Your task to perform on an android device: read, delete, or share a saved page in the chrome app Image 0: 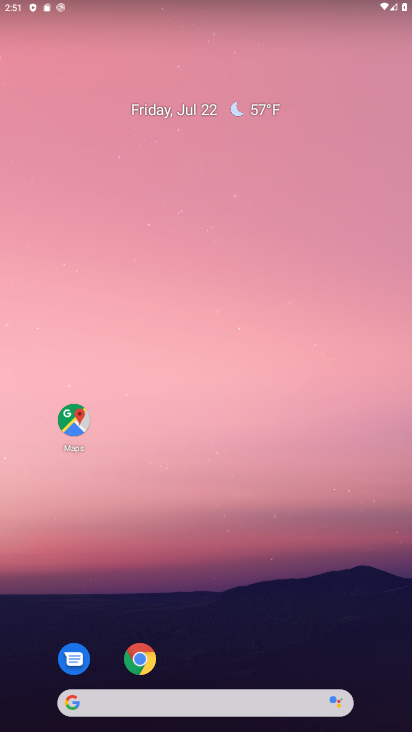
Step 0: drag from (246, 533) to (187, 214)
Your task to perform on an android device: read, delete, or share a saved page in the chrome app Image 1: 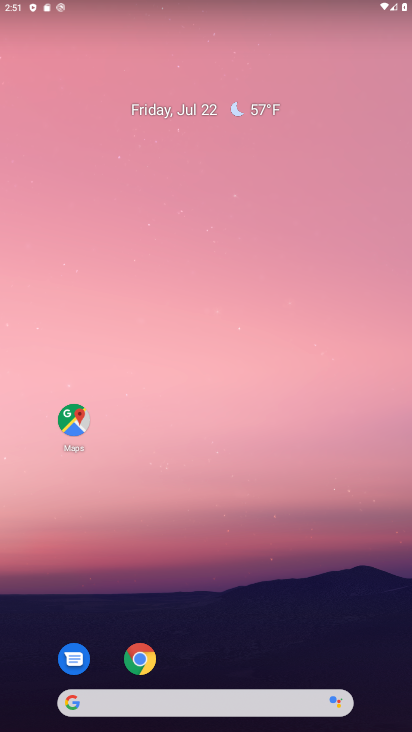
Step 1: drag from (353, 487) to (297, 17)
Your task to perform on an android device: read, delete, or share a saved page in the chrome app Image 2: 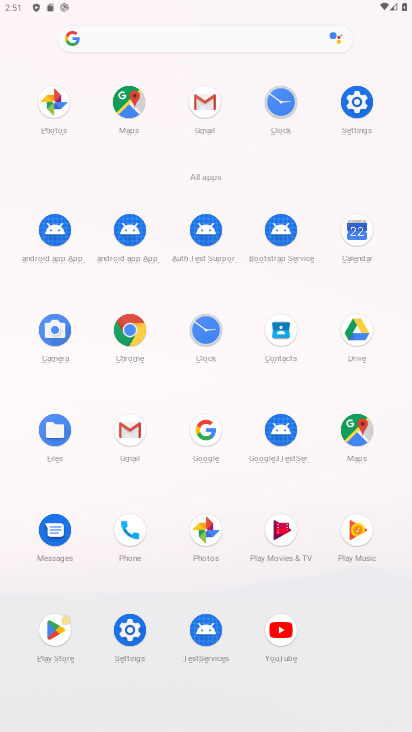
Step 2: click (362, 108)
Your task to perform on an android device: read, delete, or share a saved page in the chrome app Image 3: 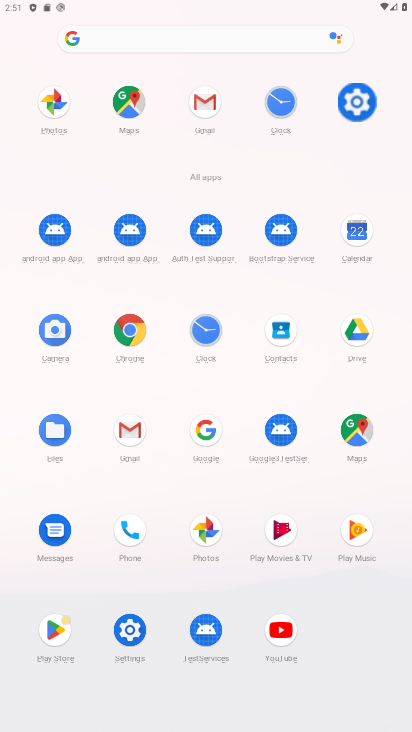
Step 3: click (362, 107)
Your task to perform on an android device: read, delete, or share a saved page in the chrome app Image 4: 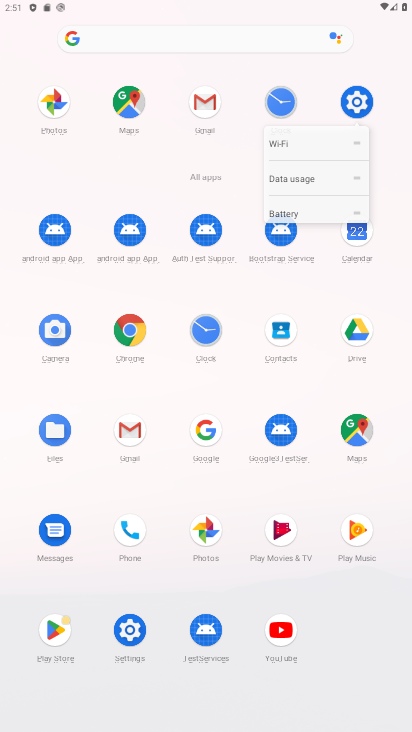
Step 4: click (362, 107)
Your task to perform on an android device: read, delete, or share a saved page in the chrome app Image 5: 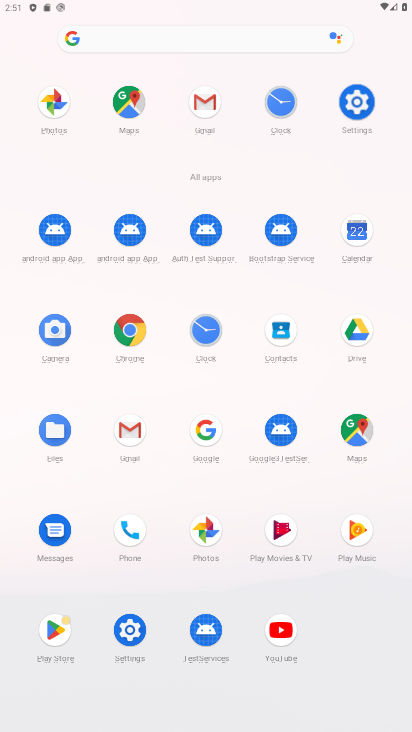
Step 5: click (362, 106)
Your task to perform on an android device: read, delete, or share a saved page in the chrome app Image 6: 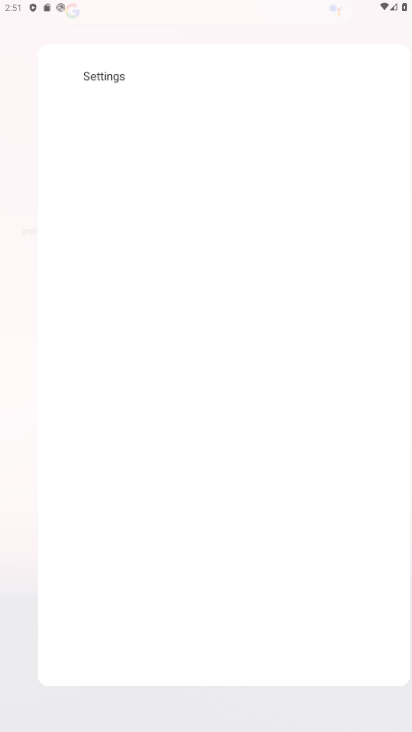
Step 6: click (363, 103)
Your task to perform on an android device: read, delete, or share a saved page in the chrome app Image 7: 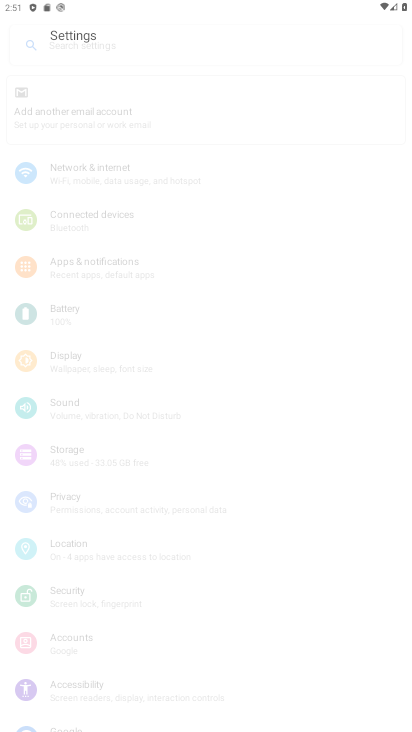
Step 7: click (366, 103)
Your task to perform on an android device: read, delete, or share a saved page in the chrome app Image 8: 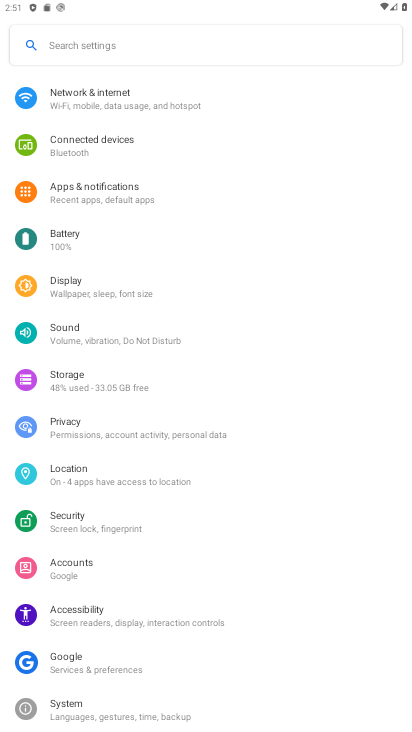
Step 8: click (373, 101)
Your task to perform on an android device: read, delete, or share a saved page in the chrome app Image 9: 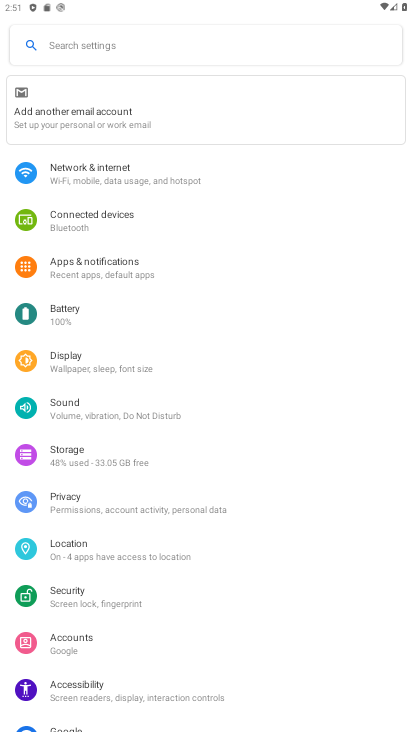
Step 9: drag from (107, 474) to (107, 120)
Your task to perform on an android device: read, delete, or share a saved page in the chrome app Image 10: 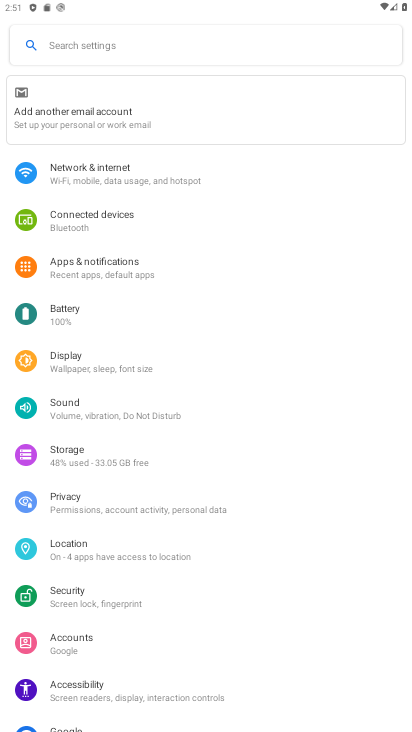
Step 10: click (114, 109)
Your task to perform on an android device: read, delete, or share a saved page in the chrome app Image 11: 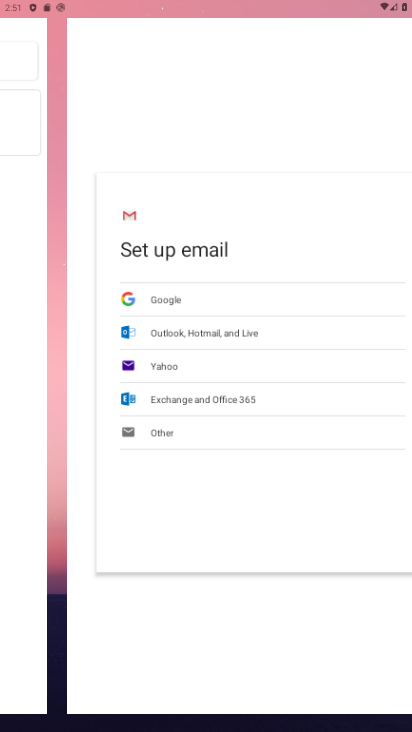
Step 11: drag from (114, 439) to (89, 141)
Your task to perform on an android device: read, delete, or share a saved page in the chrome app Image 12: 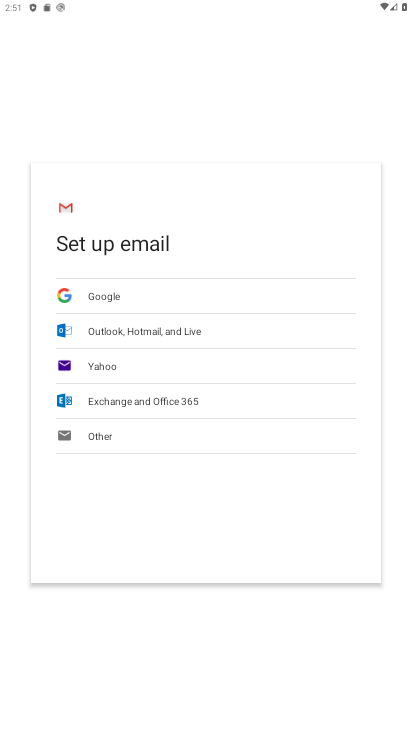
Step 12: drag from (106, 420) to (77, 137)
Your task to perform on an android device: read, delete, or share a saved page in the chrome app Image 13: 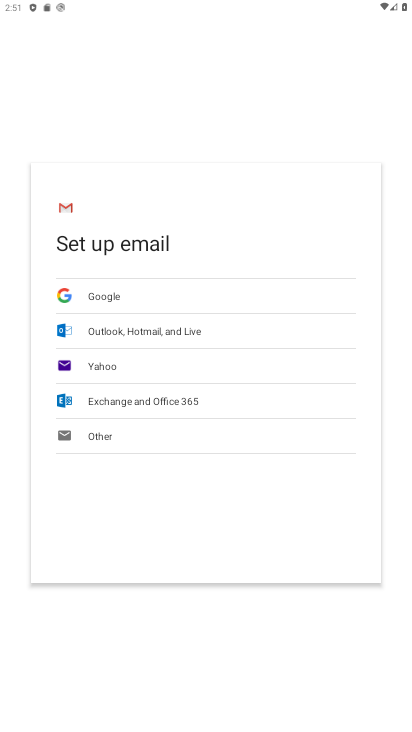
Step 13: press back button
Your task to perform on an android device: read, delete, or share a saved page in the chrome app Image 14: 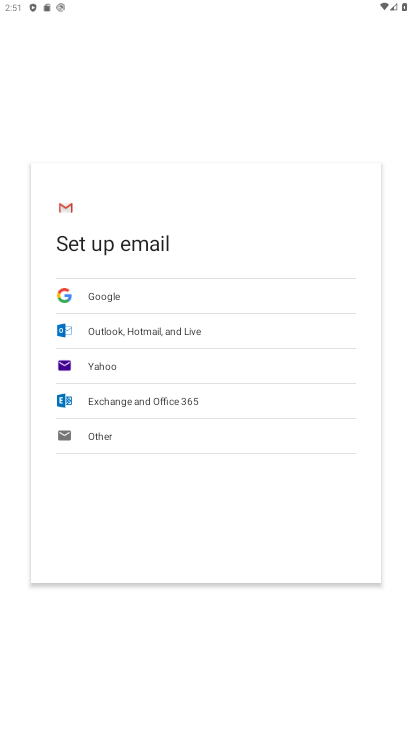
Step 14: press back button
Your task to perform on an android device: read, delete, or share a saved page in the chrome app Image 15: 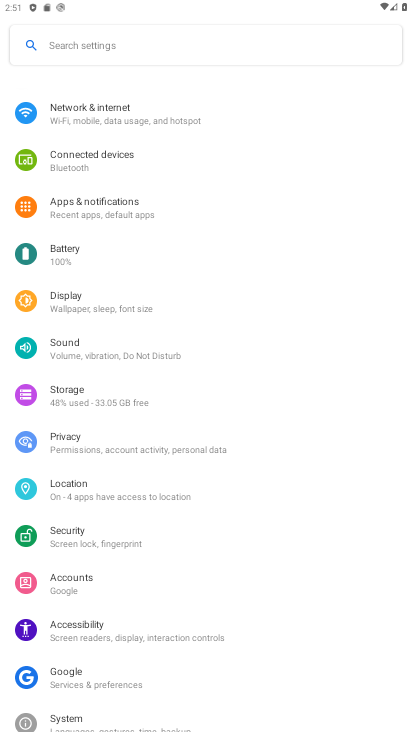
Step 15: press back button
Your task to perform on an android device: read, delete, or share a saved page in the chrome app Image 16: 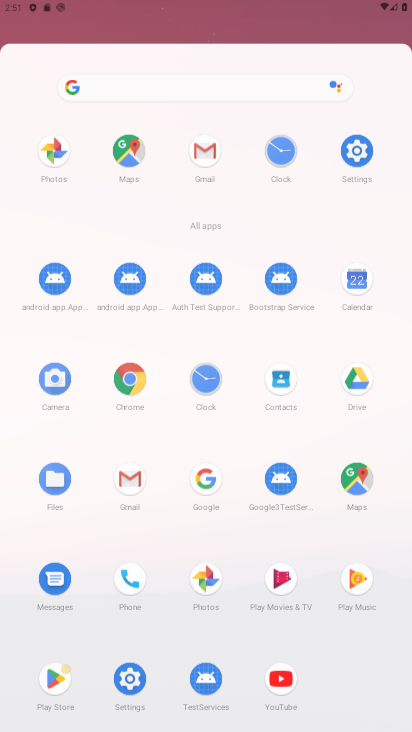
Step 16: press back button
Your task to perform on an android device: read, delete, or share a saved page in the chrome app Image 17: 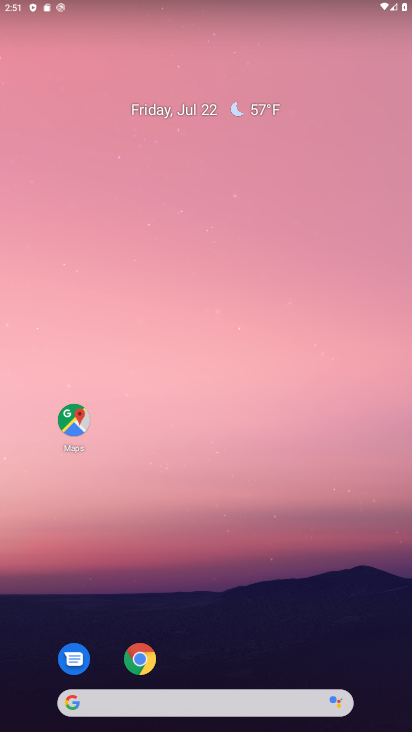
Step 17: drag from (193, 564) to (122, 131)
Your task to perform on an android device: read, delete, or share a saved page in the chrome app Image 18: 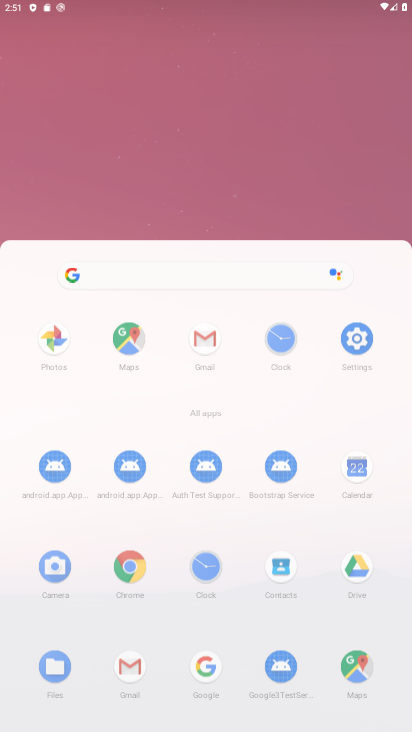
Step 18: drag from (189, 182) to (218, 25)
Your task to perform on an android device: read, delete, or share a saved page in the chrome app Image 19: 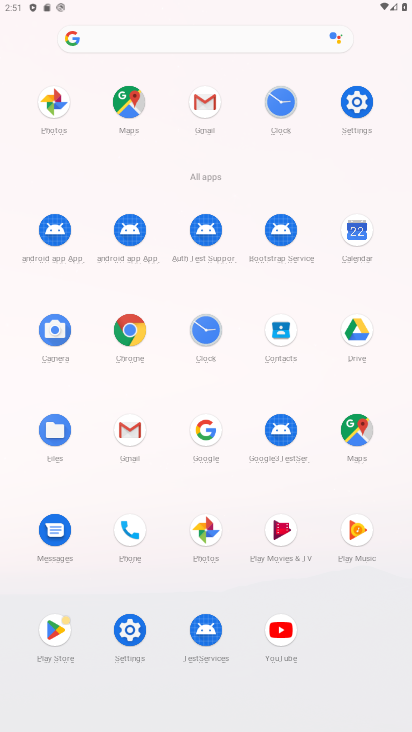
Step 19: drag from (250, 356) to (208, 122)
Your task to perform on an android device: read, delete, or share a saved page in the chrome app Image 20: 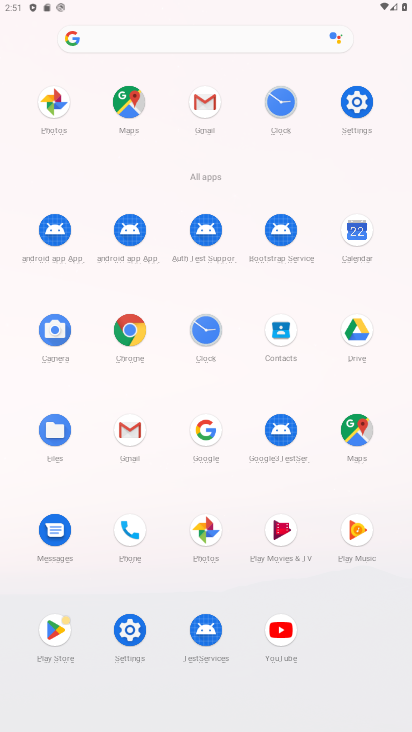
Step 20: click (135, 331)
Your task to perform on an android device: read, delete, or share a saved page in the chrome app Image 21: 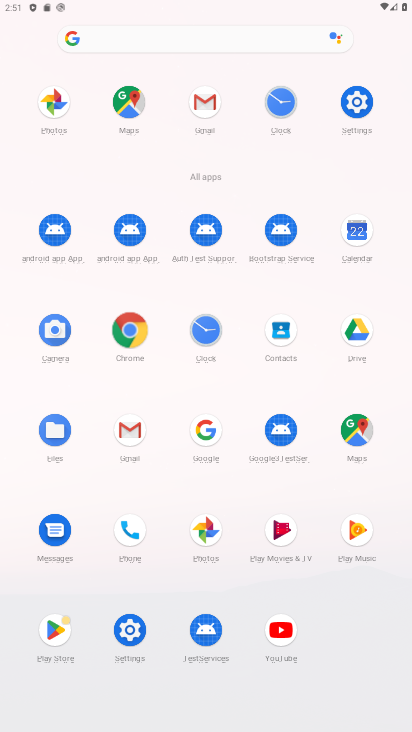
Step 21: click (135, 331)
Your task to perform on an android device: read, delete, or share a saved page in the chrome app Image 22: 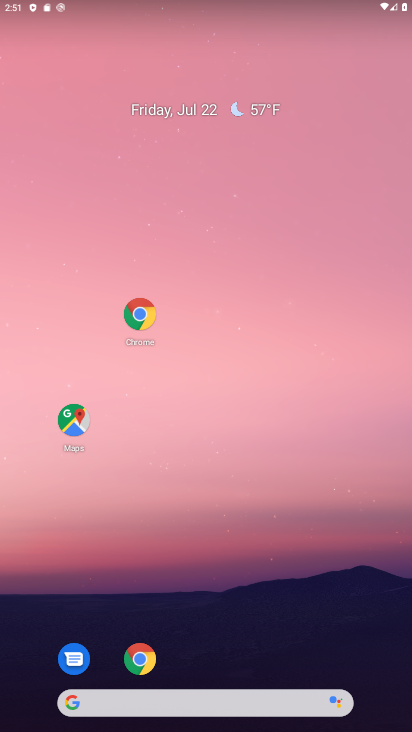
Step 22: click (139, 649)
Your task to perform on an android device: read, delete, or share a saved page in the chrome app Image 23: 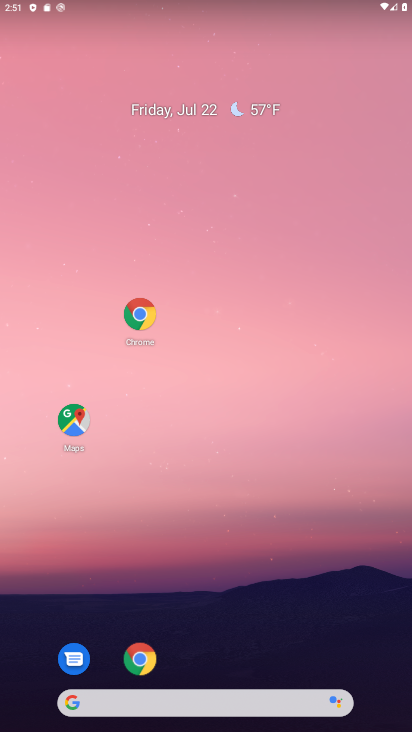
Step 23: click (139, 649)
Your task to perform on an android device: read, delete, or share a saved page in the chrome app Image 24: 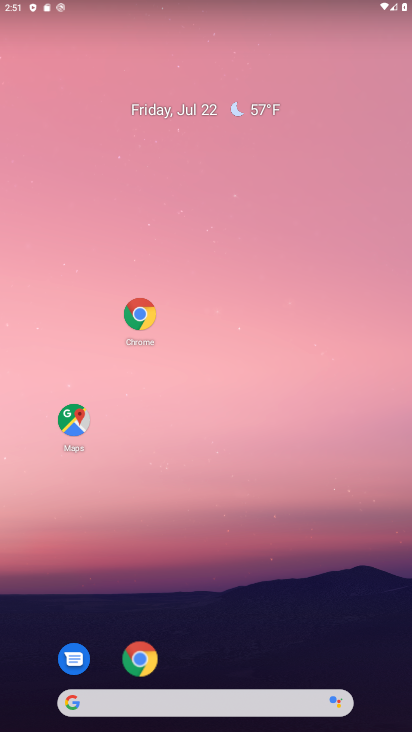
Step 24: click (139, 649)
Your task to perform on an android device: read, delete, or share a saved page in the chrome app Image 25: 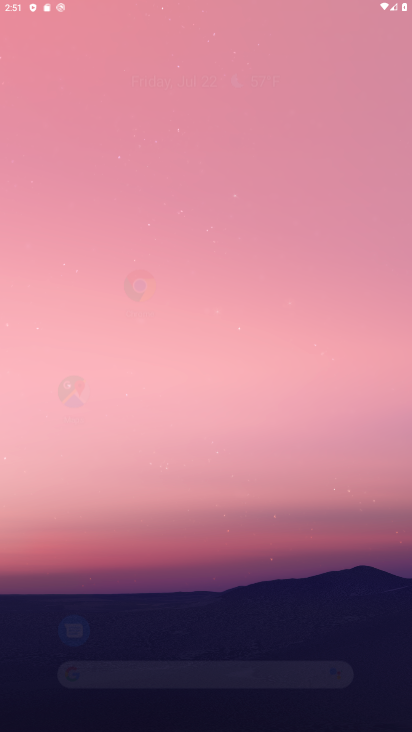
Step 25: click (139, 649)
Your task to perform on an android device: read, delete, or share a saved page in the chrome app Image 26: 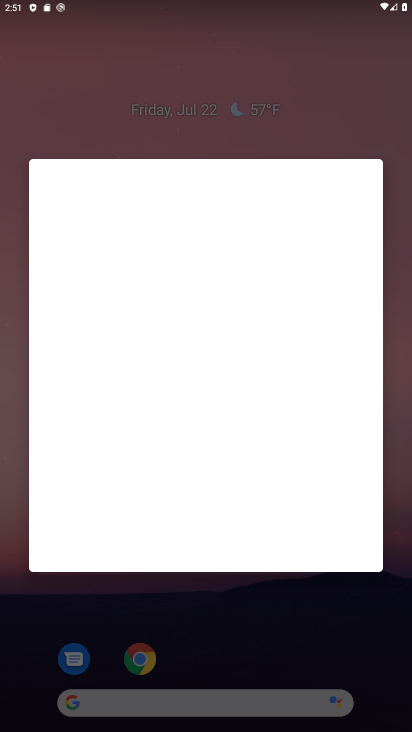
Step 26: drag from (200, 667) to (210, 113)
Your task to perform on an android device: read, delete, or share a saved page in the chrome app Image 27: 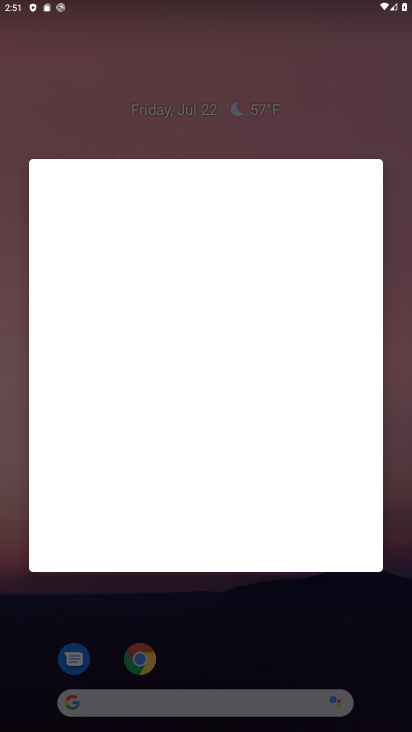
Step 27: click (208, 119)
Your task to perform on an android device: read, delete, or share a saved page in the chrome app Image 28: 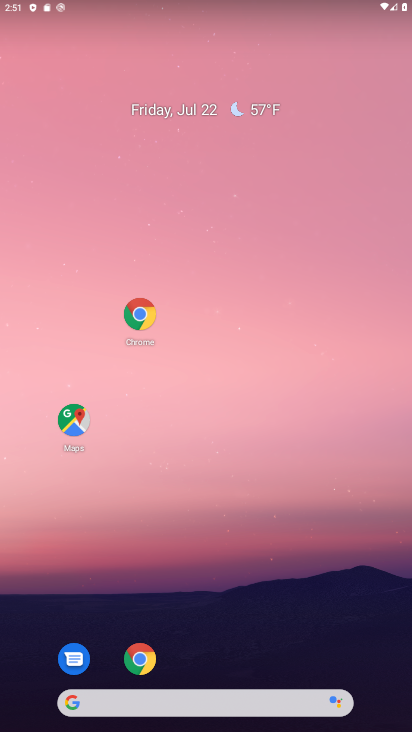
Step 28: click (183, 36)
Your task to perform on an android device: read, delete, or share a saved page in the chrome app Image 29: 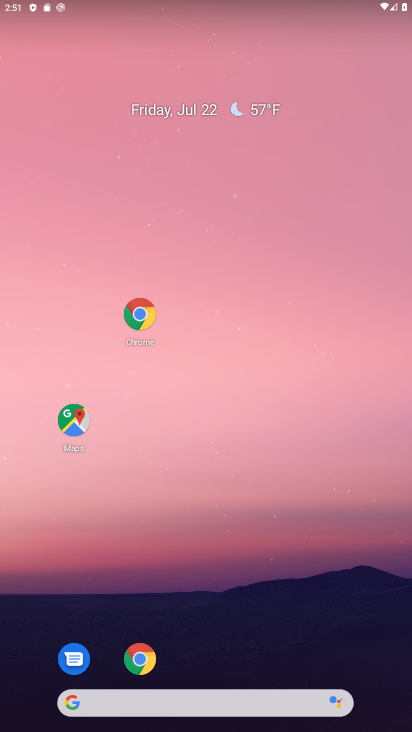
Step 29: drag from (239, 461) to (240, 115)
Your task to perform on an android device: read, delete, or share a saved page in the chrome app Image 30: 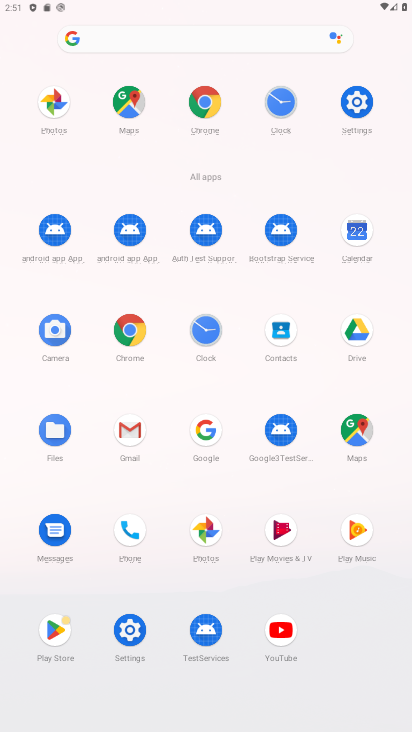
Step 30: drag from (239, 400) to (223, 243)
Your task to perform on an android device: read, delete, or share a saved page in the chrome app Image 31: 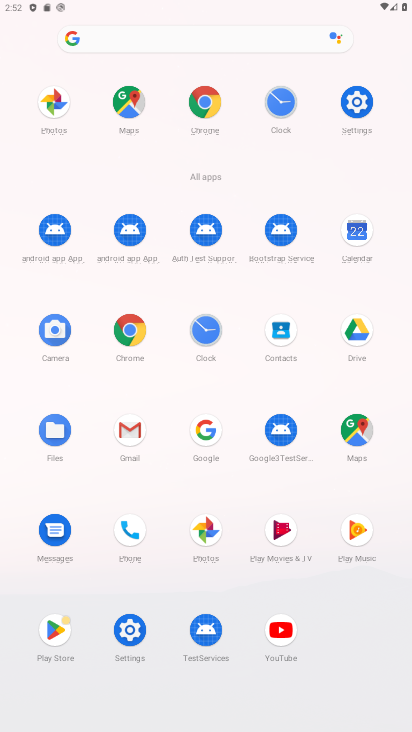
Step 31: click (131, 321)
Your task to perform on an android device: read, delete, or share a saved page in the chrome app Image 32: 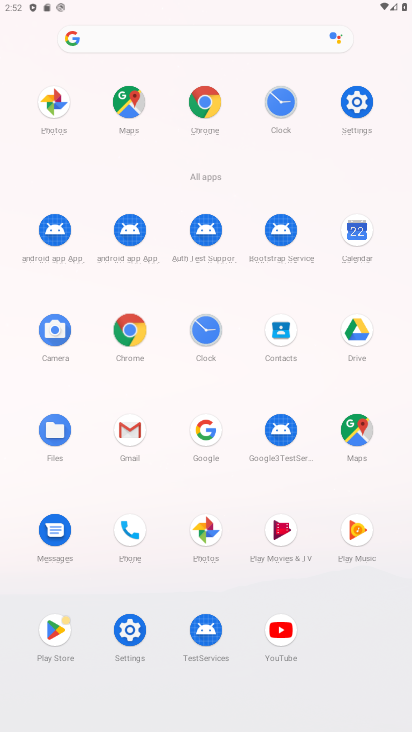
Step 32: click (133, 321)
Your task to perform on an android device: read, delete, or share a saved page in the chrome app Image 33: 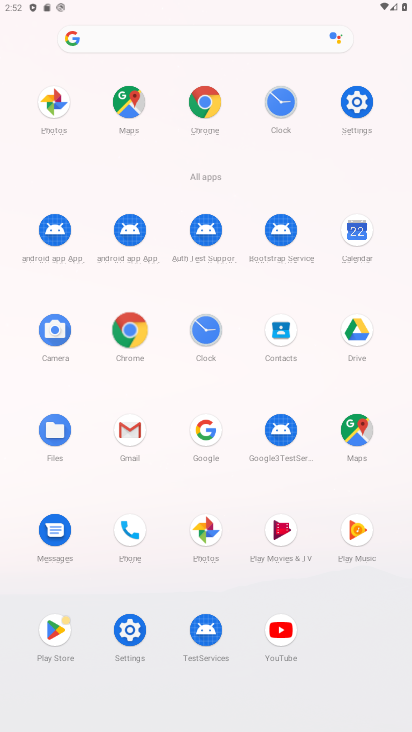
Step 33: click (133, 321)
Your task to perform on an android device: read, delete, or share a saved page in the chrome app Image 34: 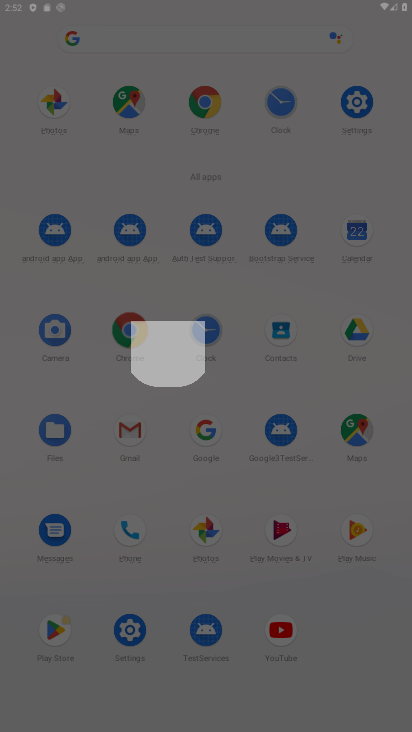
Step 34: click (133, 324)
Your task to perform on an android device: read, delete, or share a saved page in the chrome app Image 35: 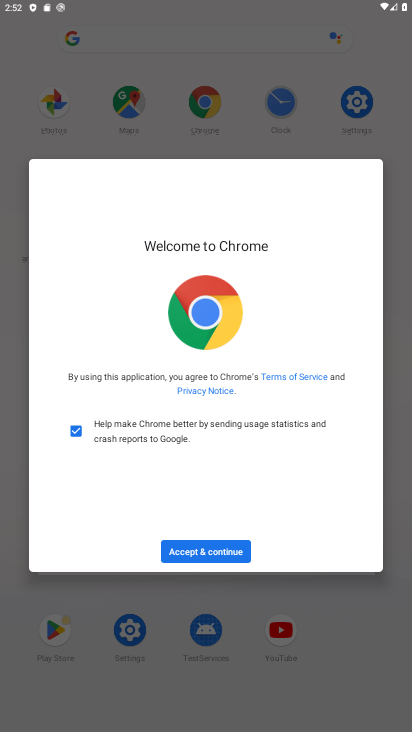
Step 35: click (215, 553)
Your task to perform on an android device: read, delete, or share a saved page in the chrome app Image 36: 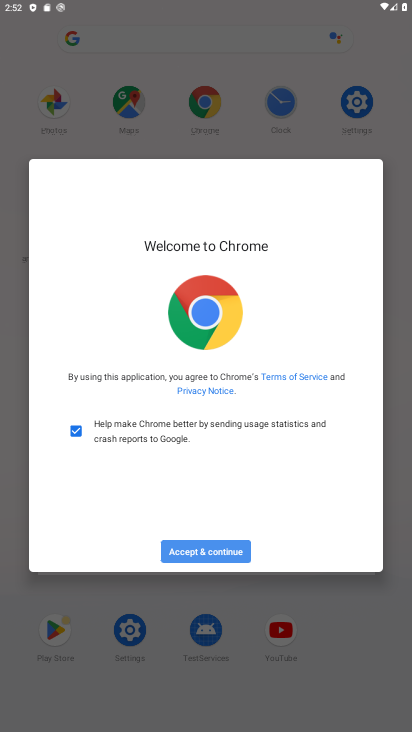
Step 36: click (215, 553)
Your task to perform on an android device: read, delete, or share a saved page in the chrome app Image 37: 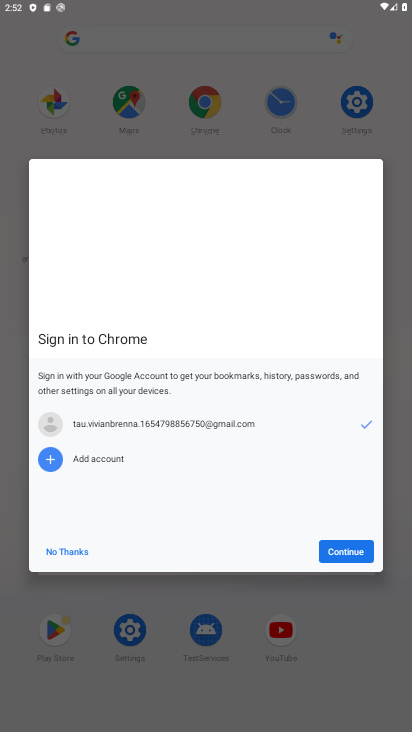
Step 37: click (221, 556)
Your task to perform on an android device: read, delete, or share a saved page in the chrome app Image 38: 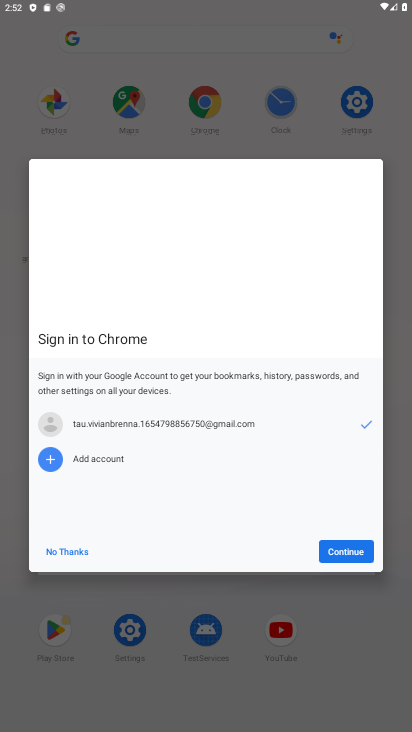
Step 38: click (64, 549)
Your task to perform on an android device: read, delete, or share a saved page in the chrome app Image 39: 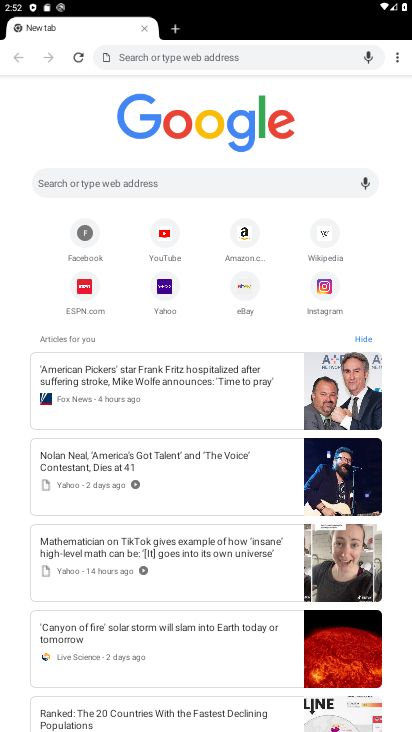
Step 39: drag from (394, 57) to (274, 204)
Your task to perform on an android device: read, delete, or share a saved page in the chrome app Image 40: 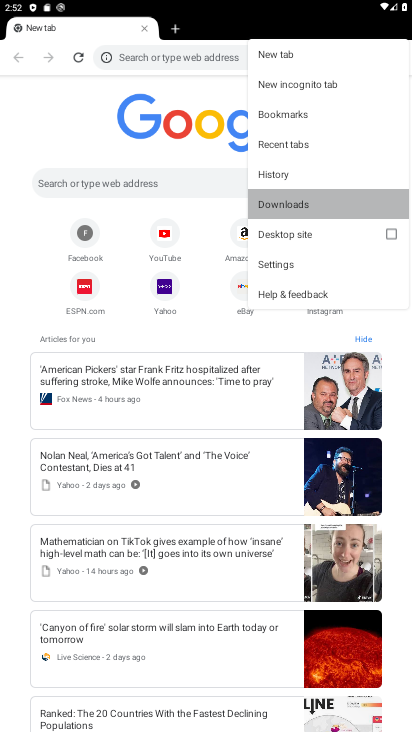
Step 40: click (276, 202)
Your task to perform on an android device: read, delete, or share a saved page in the chrome app Image 41: 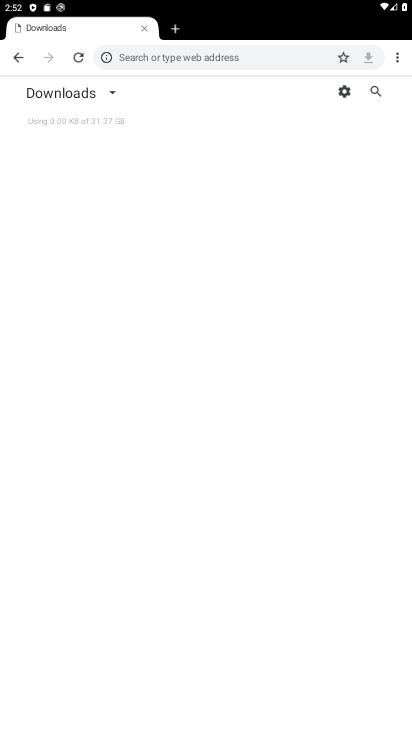
Step 41: click (107, 86)
Your task to perform on an android device: read, delete, or share a saved page in the chrome app Image 42: 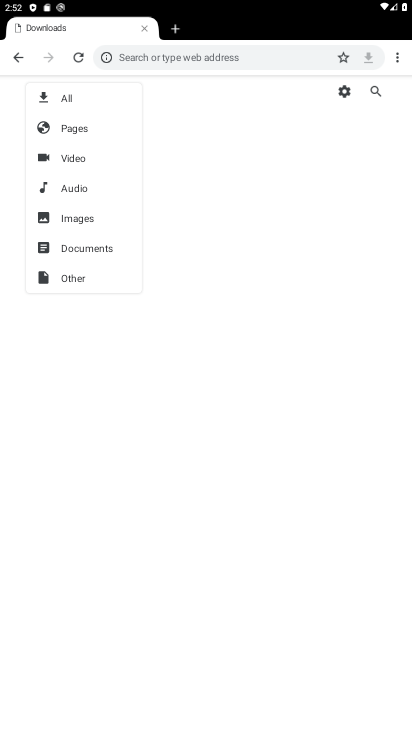
Step 42: click (66, 137)
Your task to perform on an android device: read, delete, or share a saved page in the chrome app Image 43: 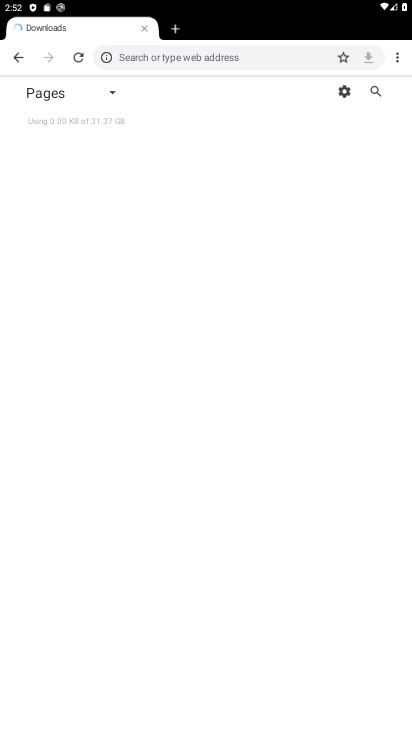
Step 43: click (72, 126)
Your task to perform on an android device: read, delete, or share a saved page in the chrome app Image 44: 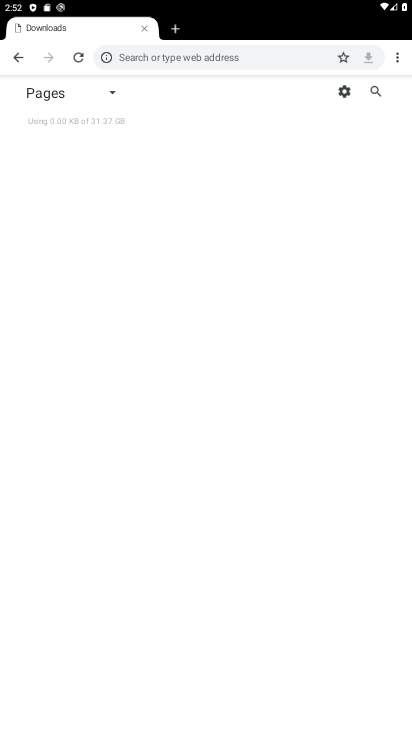
Step 44: click (72, 126)
Your task to perform on an android device: read, delete, or share a saved page in the chrome app Image 45: 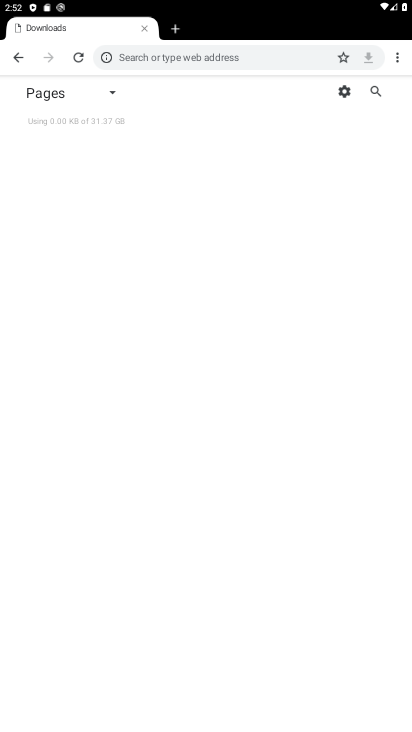
Step 45: task complete